Your task to perform on an android device: Go to ESPN.com Image 0: 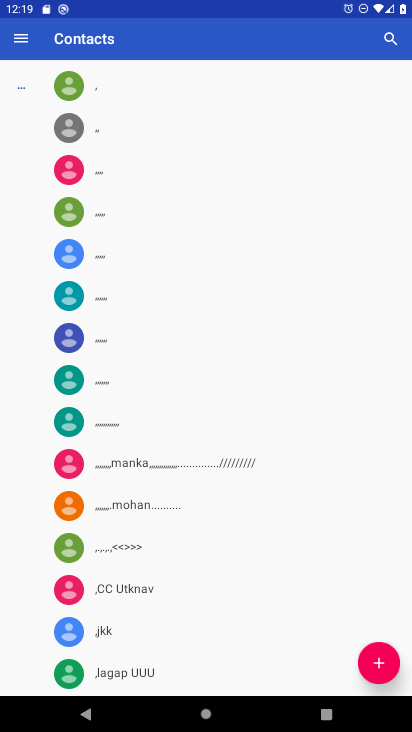
Step 0: press home button
Your task to perform on an android device: Go to ESPN.com Image 1: 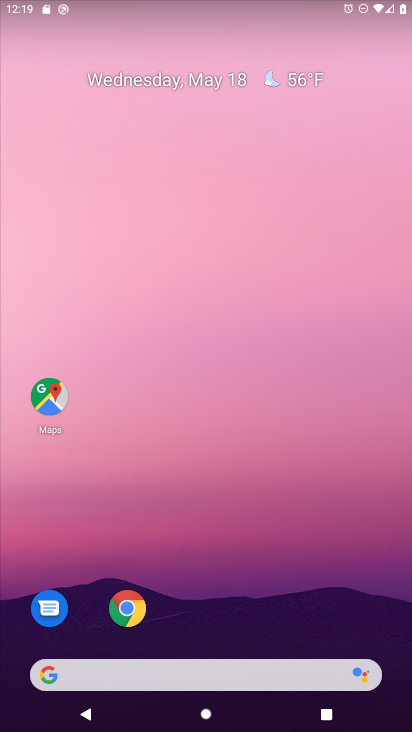
Step 1: drag from (268, 692) to (245, 200)
Your task to perform on an android device: Go to ESPN.com Image 2: 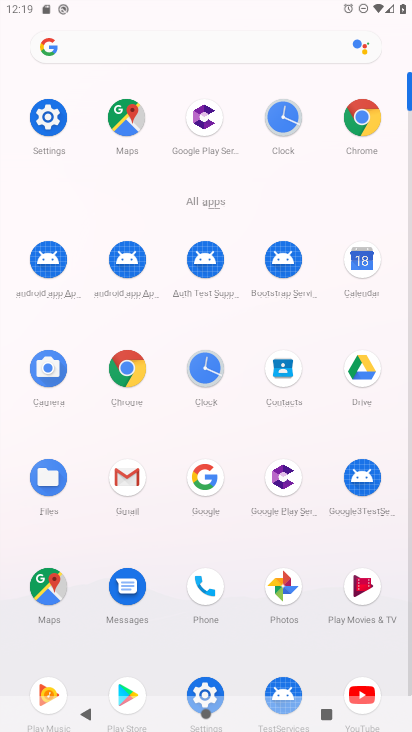
Step 2: click (351, 118)
Your task to perform on an android device: Go to ESPN.com Image 3: 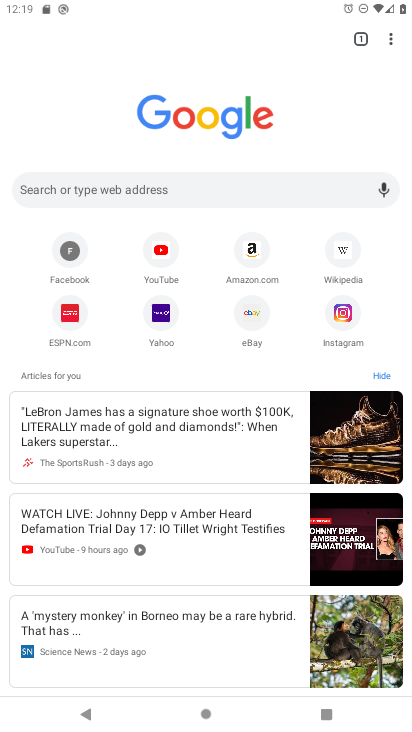
Step 3: click (171, 193)
Your task to perform on an android device: Go to ESPN.com Image 4: 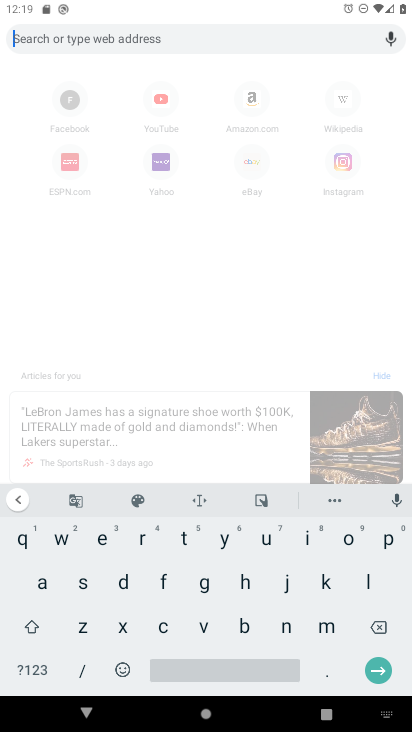
Step 4: click (94, 542)
Your task to perform on an android device: Go to ESPN.com Image 5: 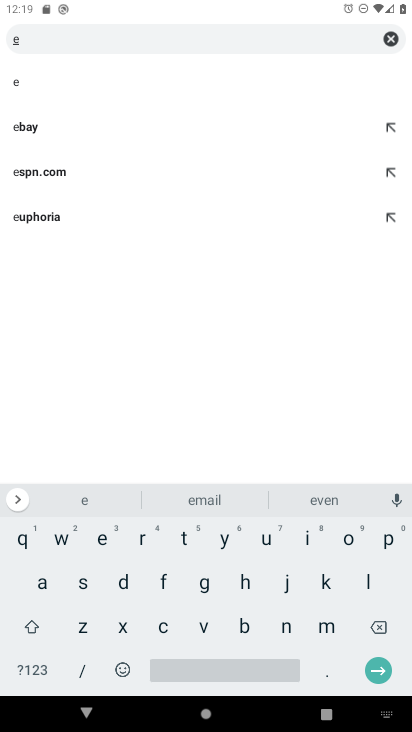
Step 5: click (78, 580)
Your task to perform on an android device: Go to ESPN.com Image 6: 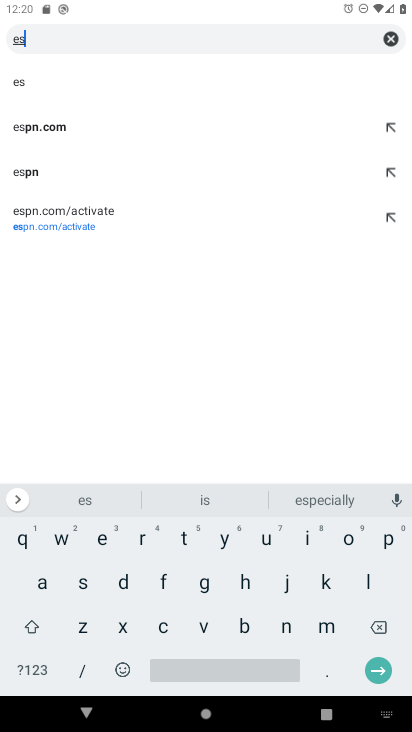
Step 6: click (31, 127)
Your task to perform on an android device: Go to ESPN.com Image 7: 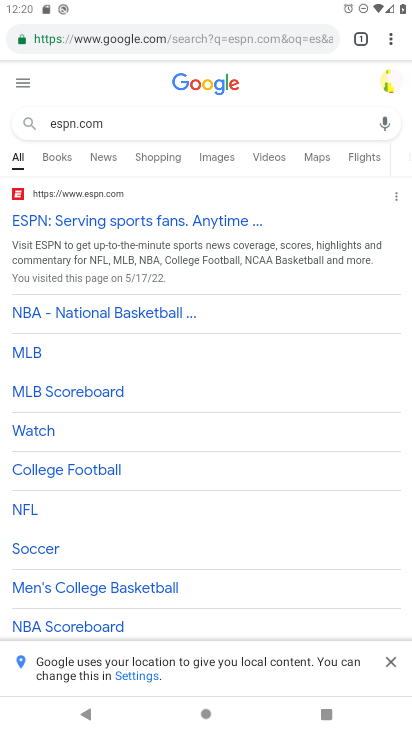
Step 7: click (83, 230)
Your task to perform on an android device: Go to ESPN.com Image 8: 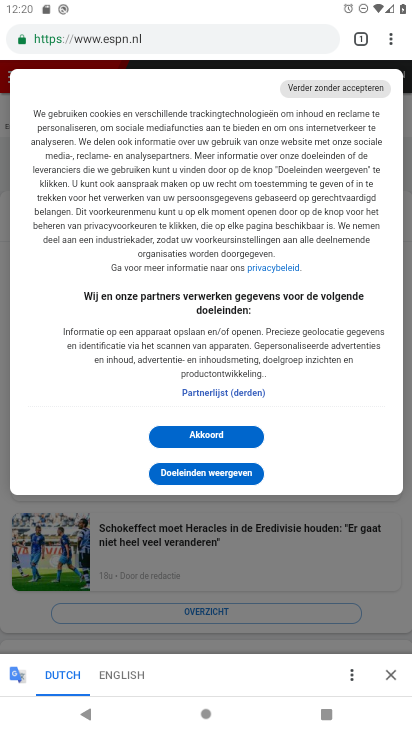
Step 8: task complete